Your task to perform on an android device: search for starred emails in the gmail app Image 0: 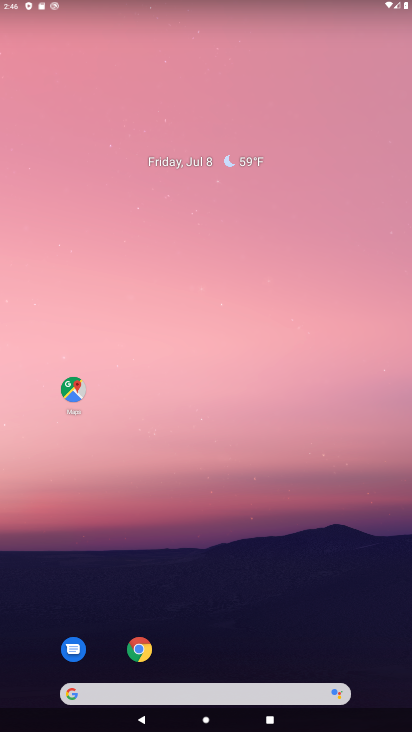
Step 0: drag from (318, 576) to (332, 162)
Your task to perform on an android device: search for starred emails in the gmail app Image 1: 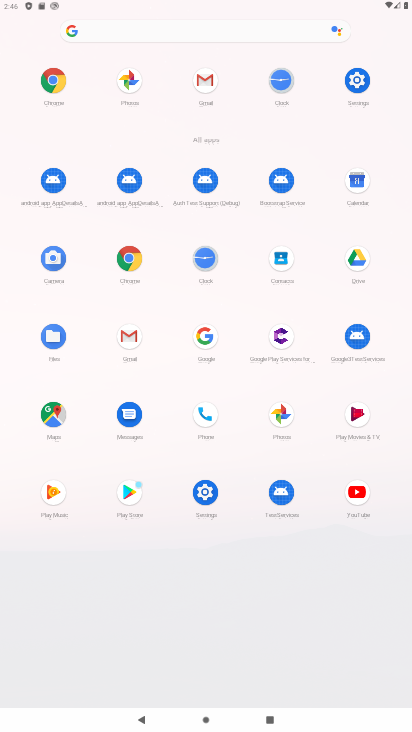
Step 1: click (204, 71)
Your task to perform on an android device: search for starred emails in the gmail app Image 2: 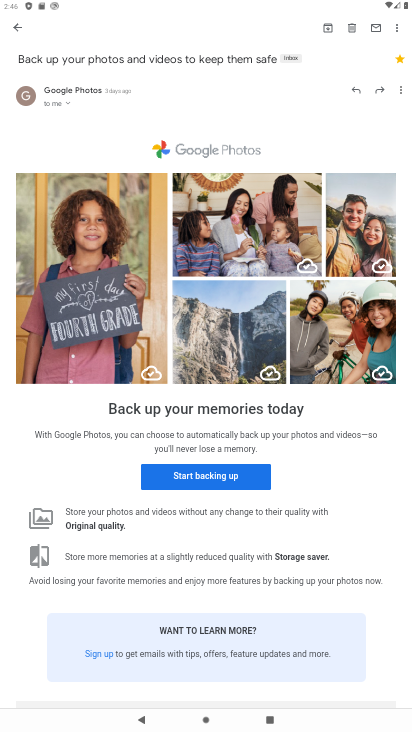
Step 2: click (13, 25)
Your task to perform on an android device: search for starred emails in the gmail app Image 3: 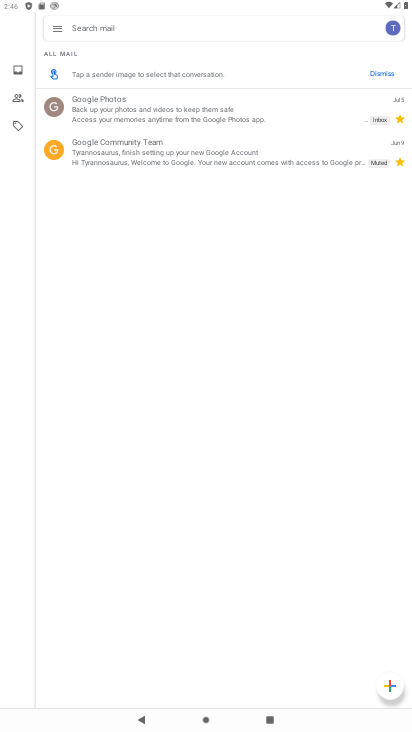
Step 3: click (13, 25)
Your task to perform on an android device: search for starred emails in the gmail app Image 4: 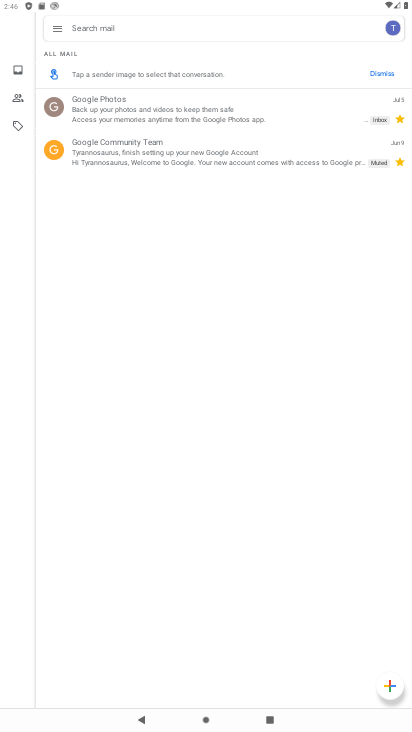
Step 4: click (61, 25)
Your task to perform on an android device: search for starred emails in the gmail app Image 5: 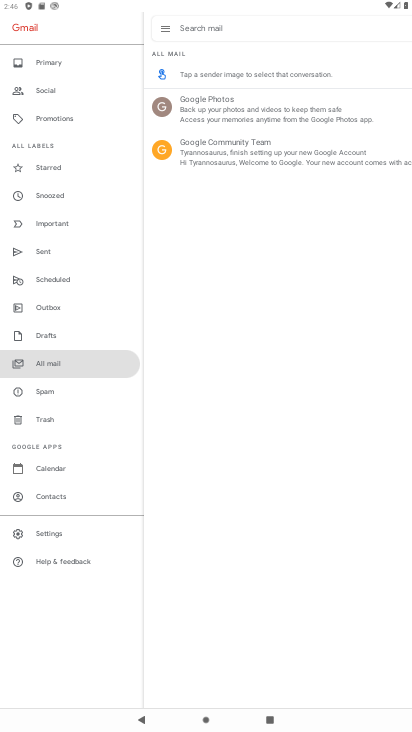
Step 5: click (45, 163)
Your task to perform on an android device: search for starred emails in the gmail app Image 6: 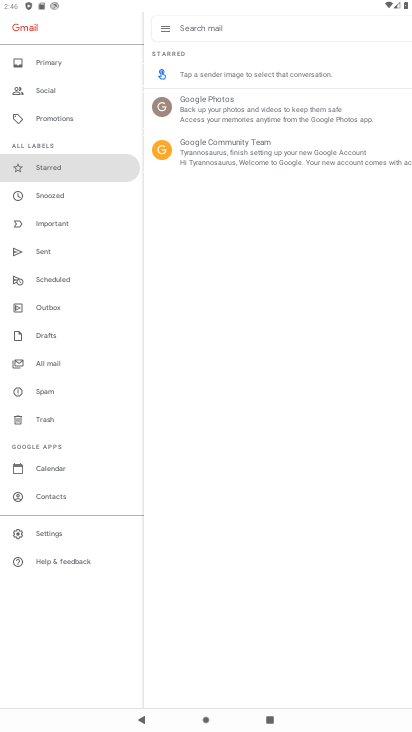
Step 6: click (58, 166)
Your task to perform on an android device: search for starred emails in the gmail app Image 7: 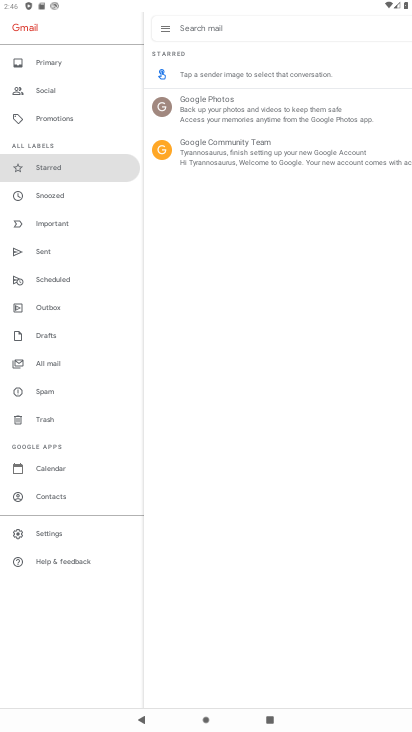
Step 7: task complete